Your task to perform on an android device: Add macbook to the cart on ebay.com Image 0: 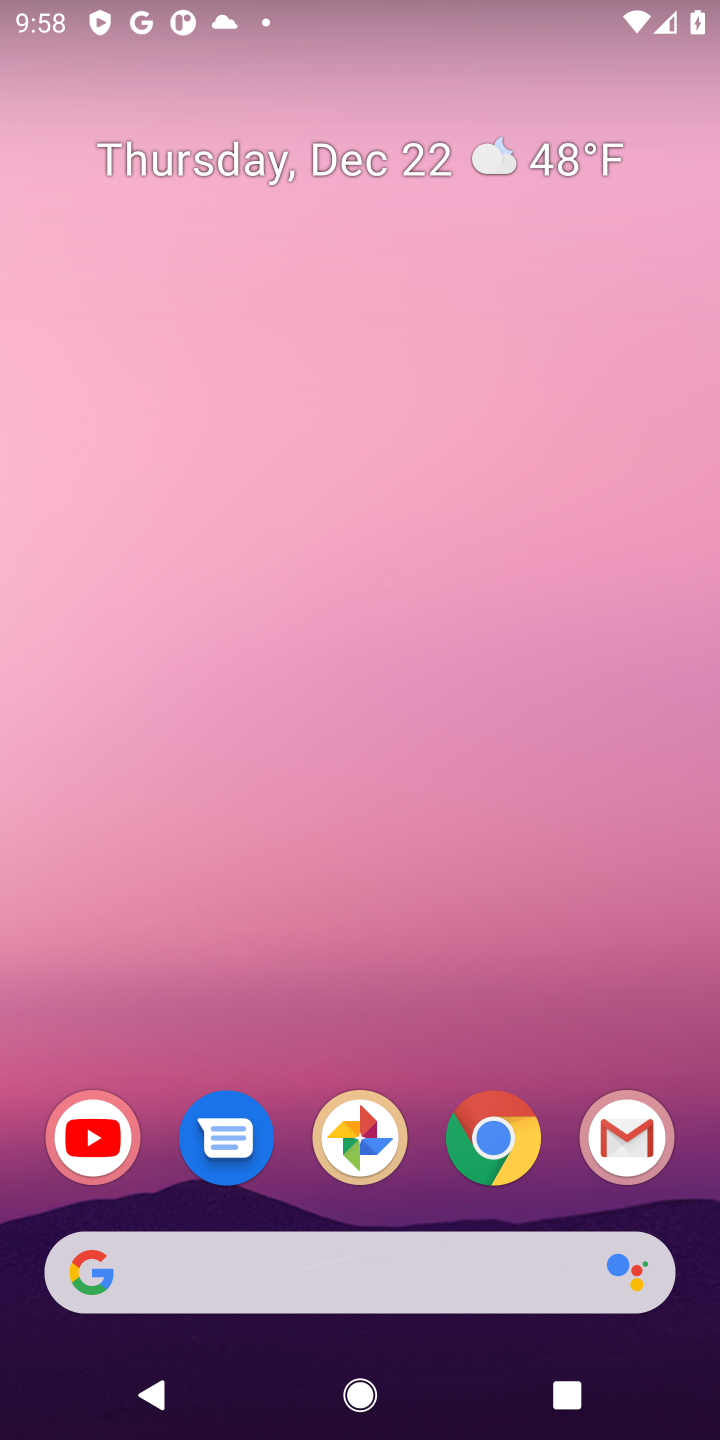
Step 0: click (500, 1136)
Your task to perform on an android device: Add macbook to the cart on ebay.com Image 1: 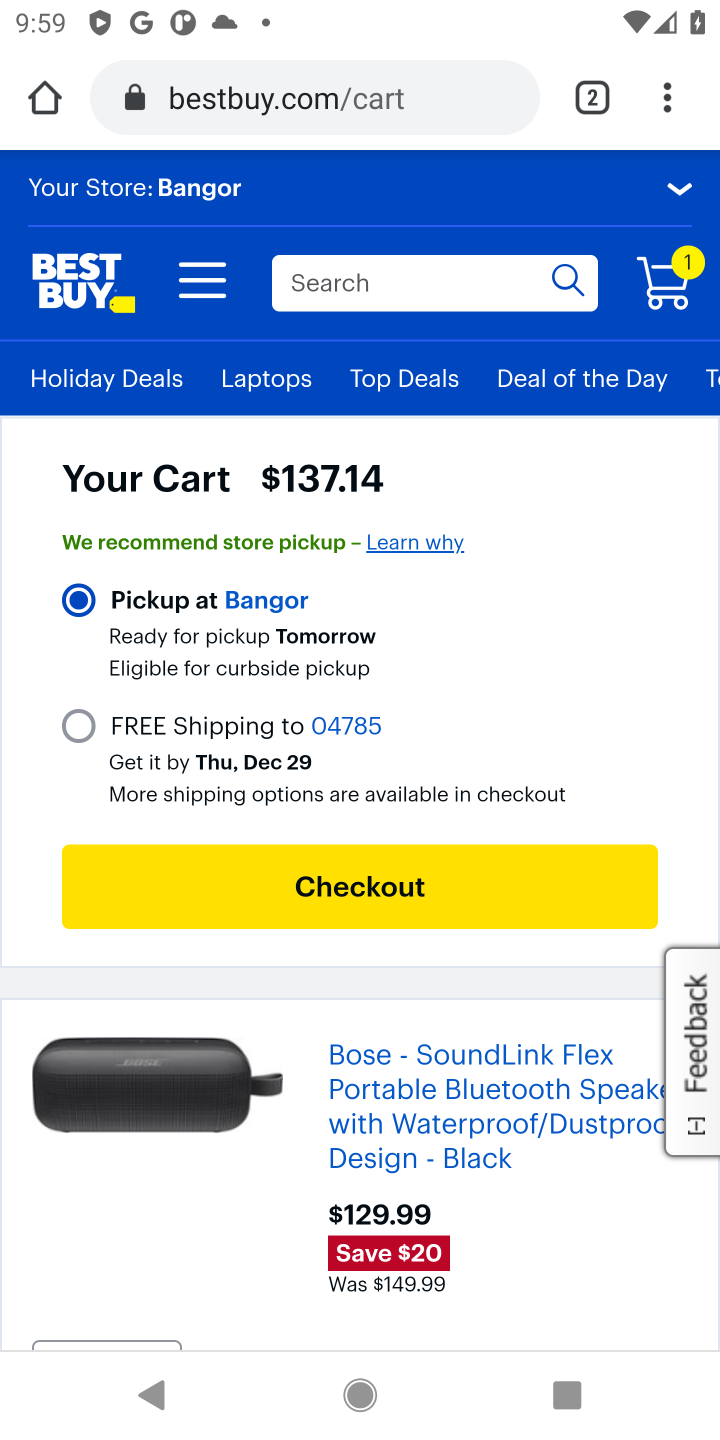
Step 1: click (248, 107)
Your task to perform on an android device: Add macbook to the cart on ebay.com Image 2: 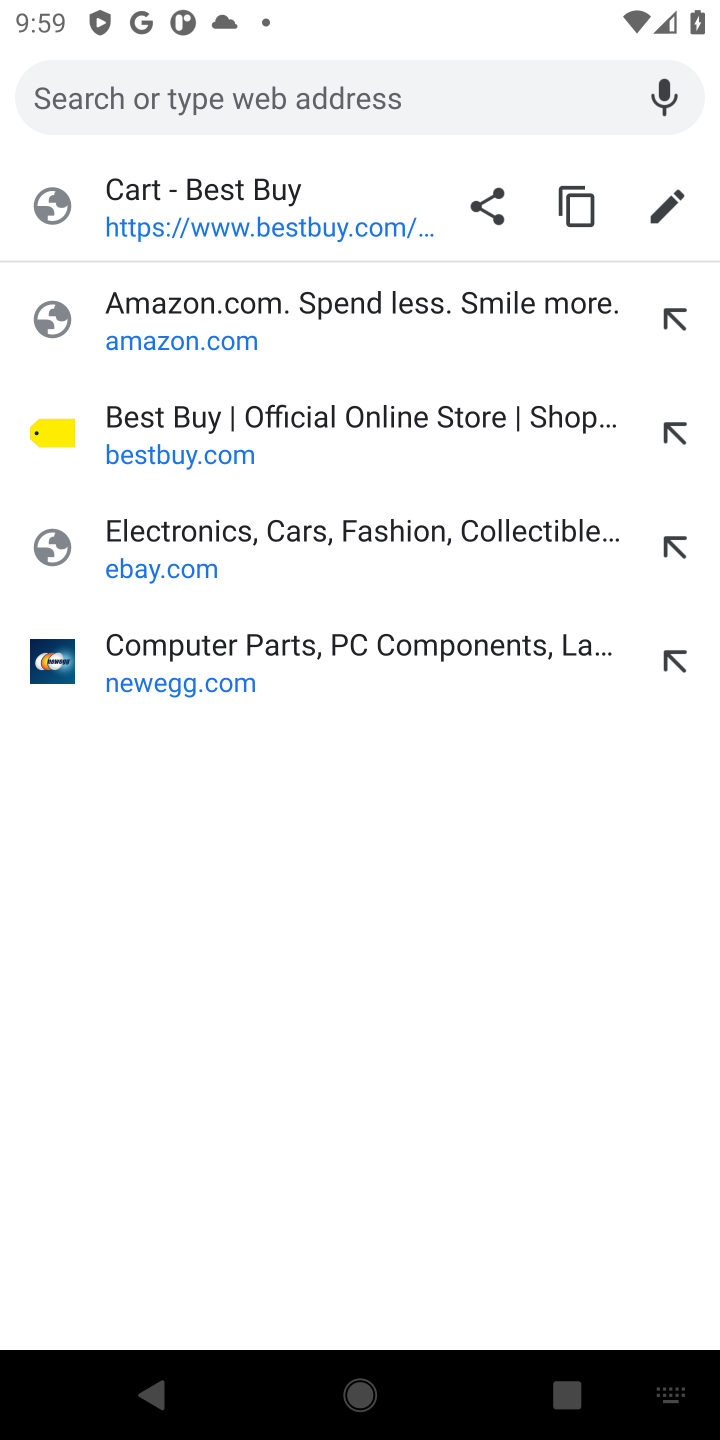
Step 2: type "ebay.com"
Your task to perform on an android device: Add macbook to the cart on ebay.com Image 3: 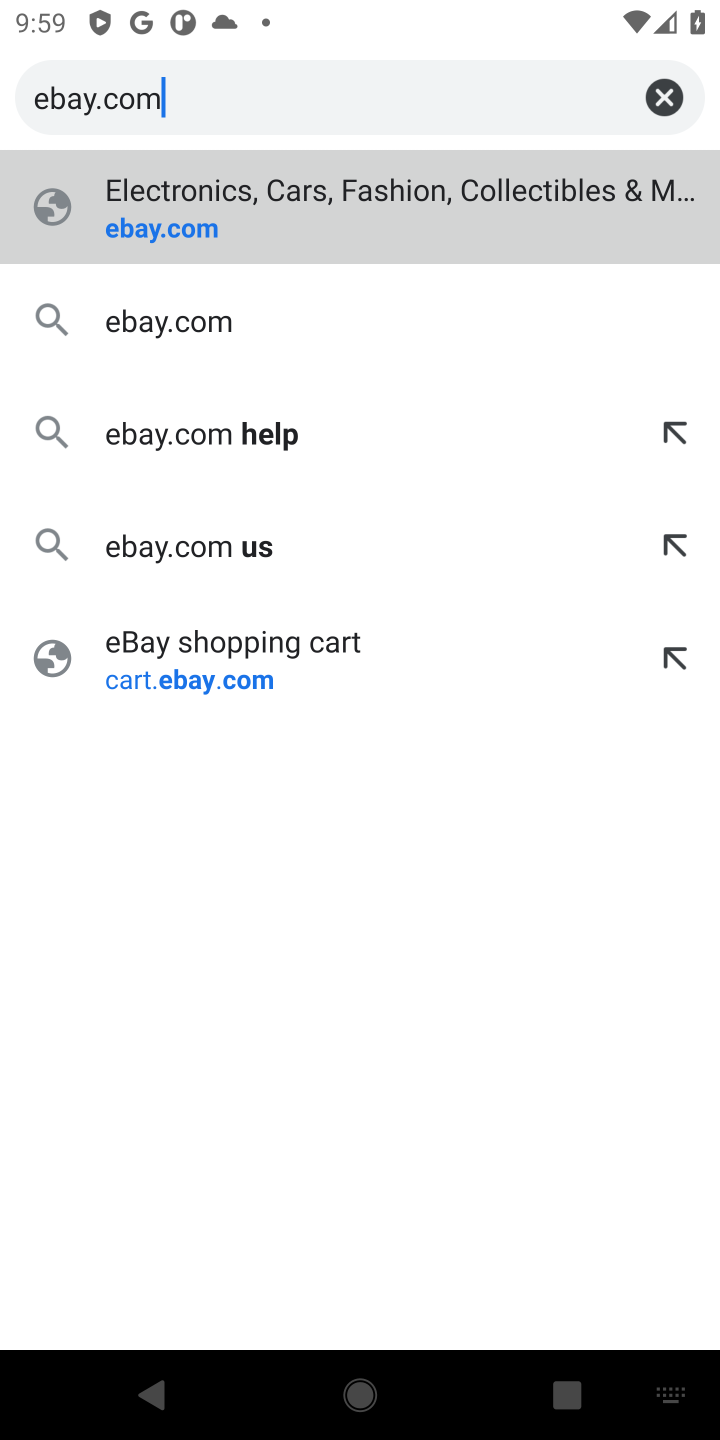
Step 3: click (336, 213)
Your task to perform on an android device: Add macbook to the cart on ebay.com Image 4: 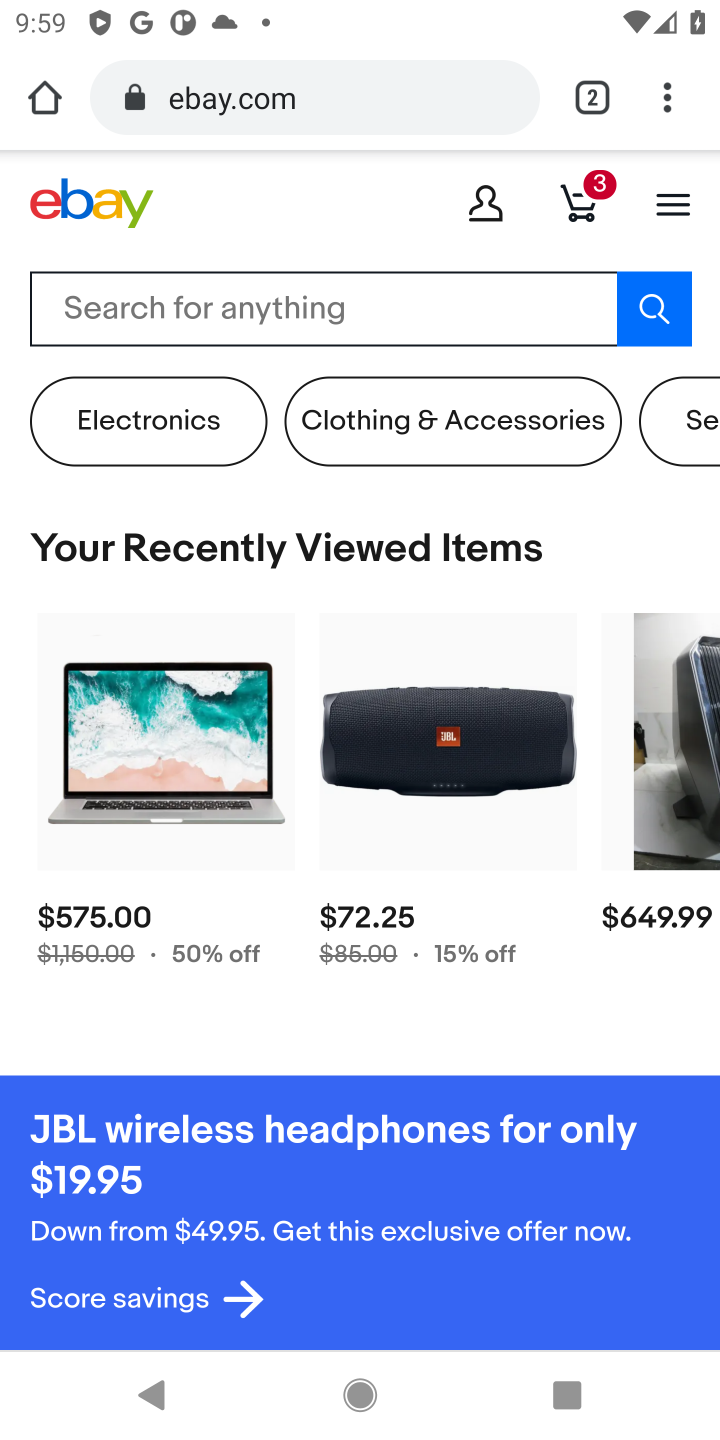
Step 4: drag from (464, 1025) to (515, 634)
Your task to perform on an android device: Add macbook to the cart on ebay.com Image 5: 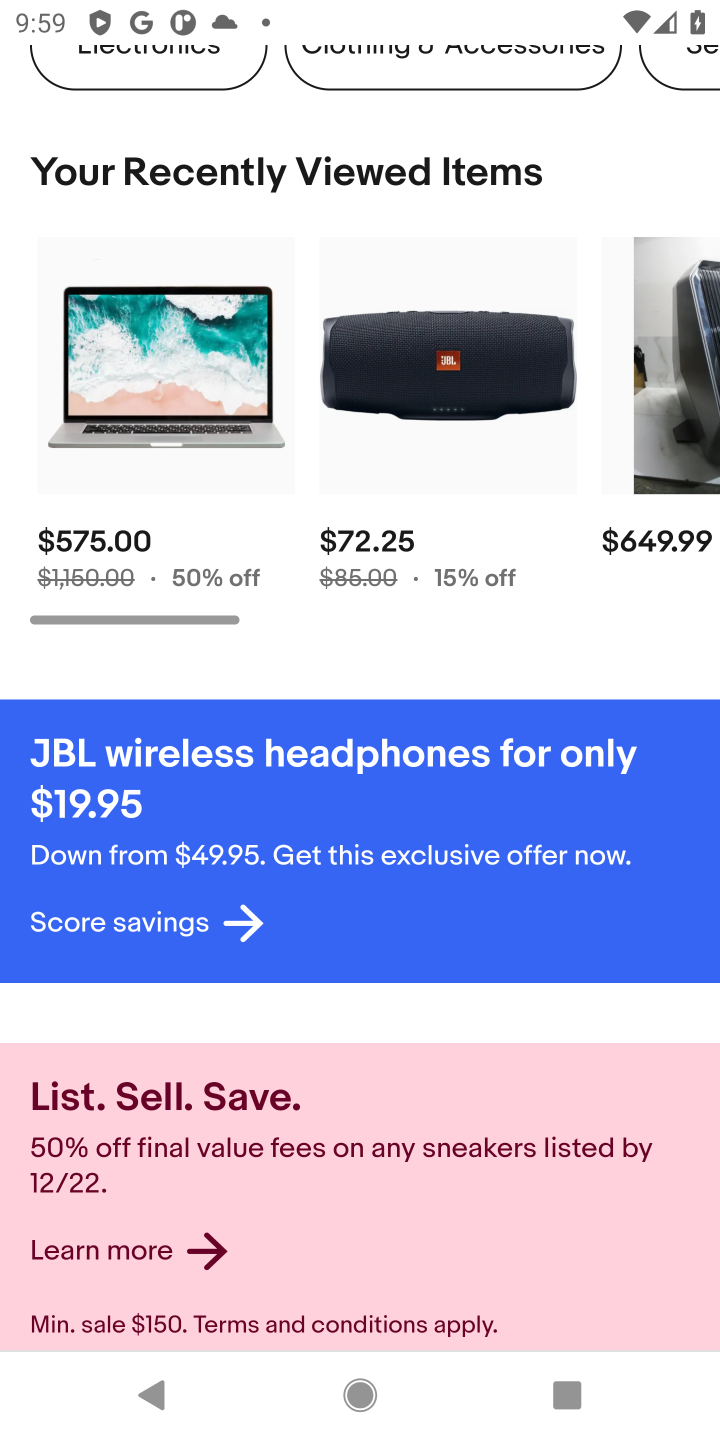
Step 5: drag from (358, 231) to (220, 1328)
Your task to perform on an android device: Add macbook to the cart on ebay.com Image 6: 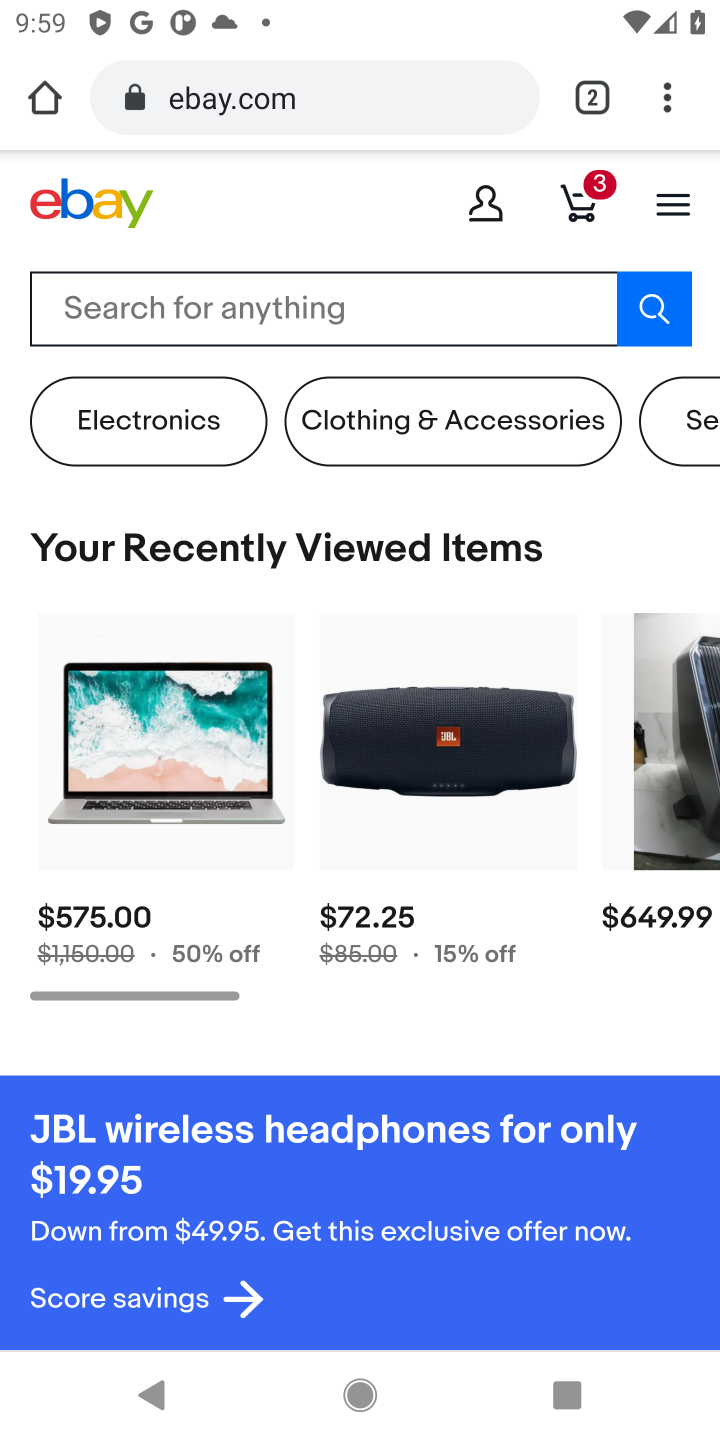
Step 6: click (376, 333)
Your task to perform on an android device: Add macbook to the cart on ebay.com Image 7: 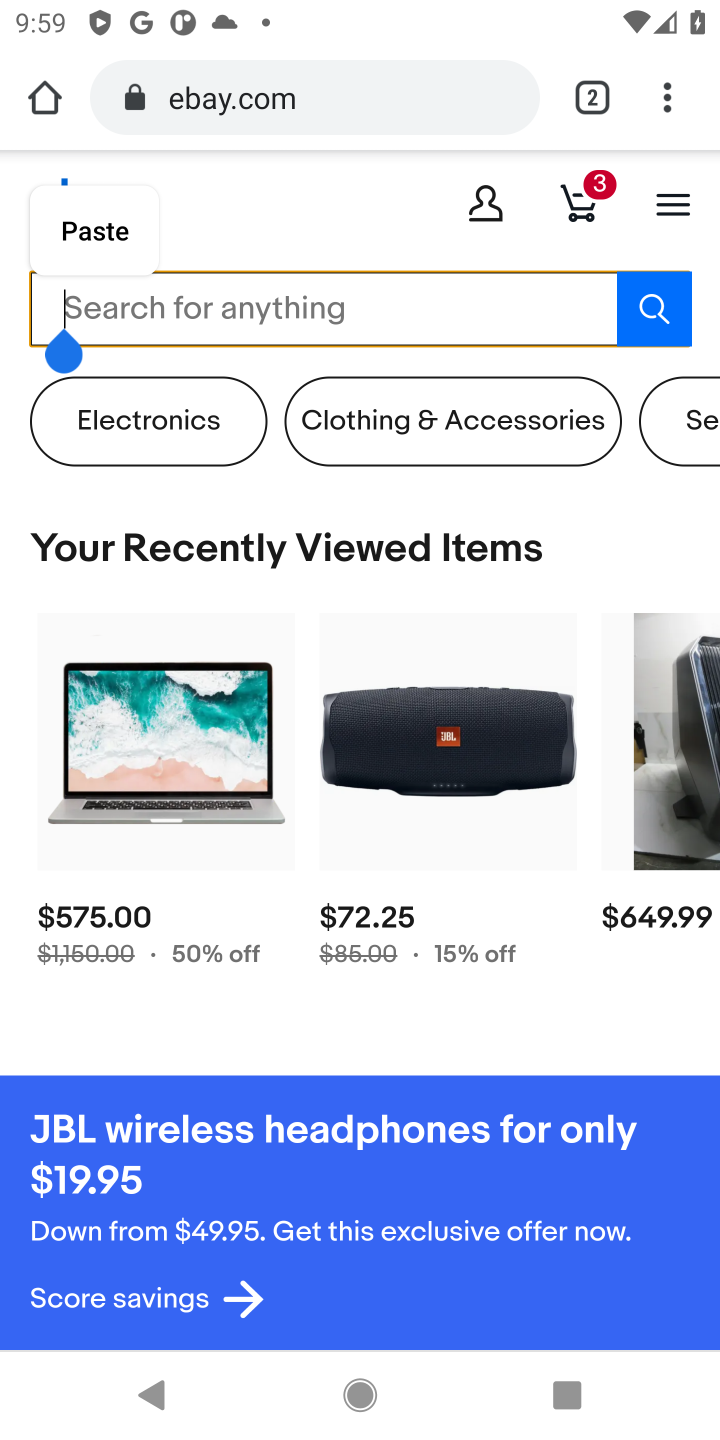
Step 7: type "macbook"
Your task to perform on an android device: Add macbook to the cart on ebay.com Image 8: 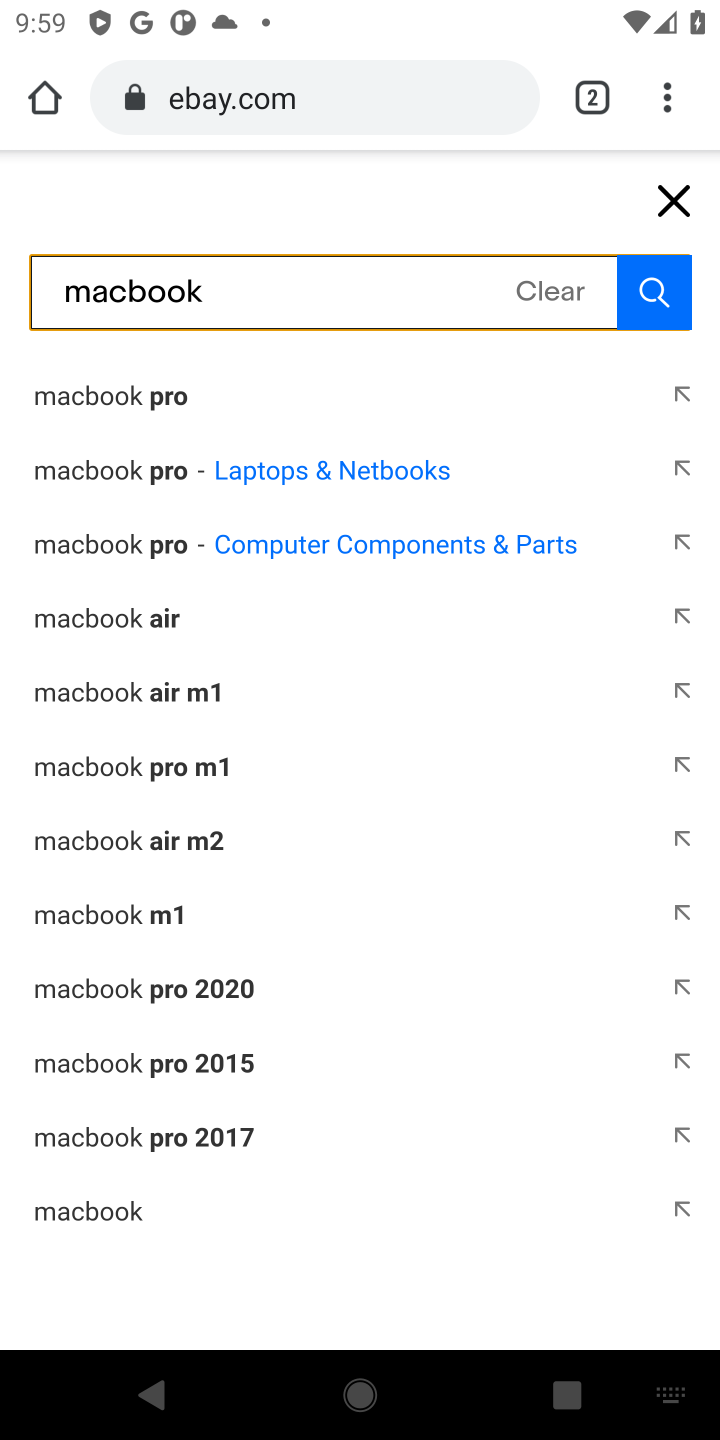
Step 8: click (657, 293)
Your task to perform on an android device: Add macbook to the cart on ebay.com Image 9: 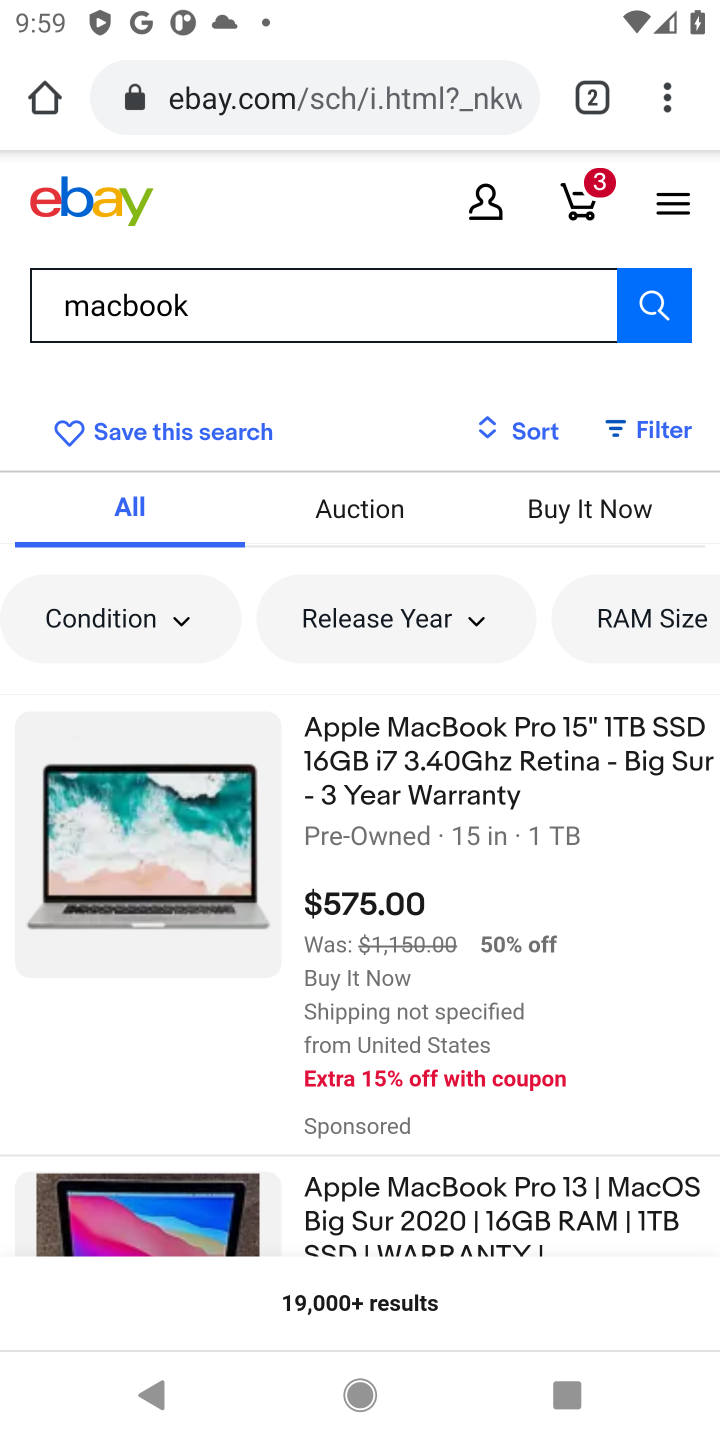
Step 9: click (417, 778)
Your task to perform on an android device: Add macbook to the cart on ebay.com Image 10: 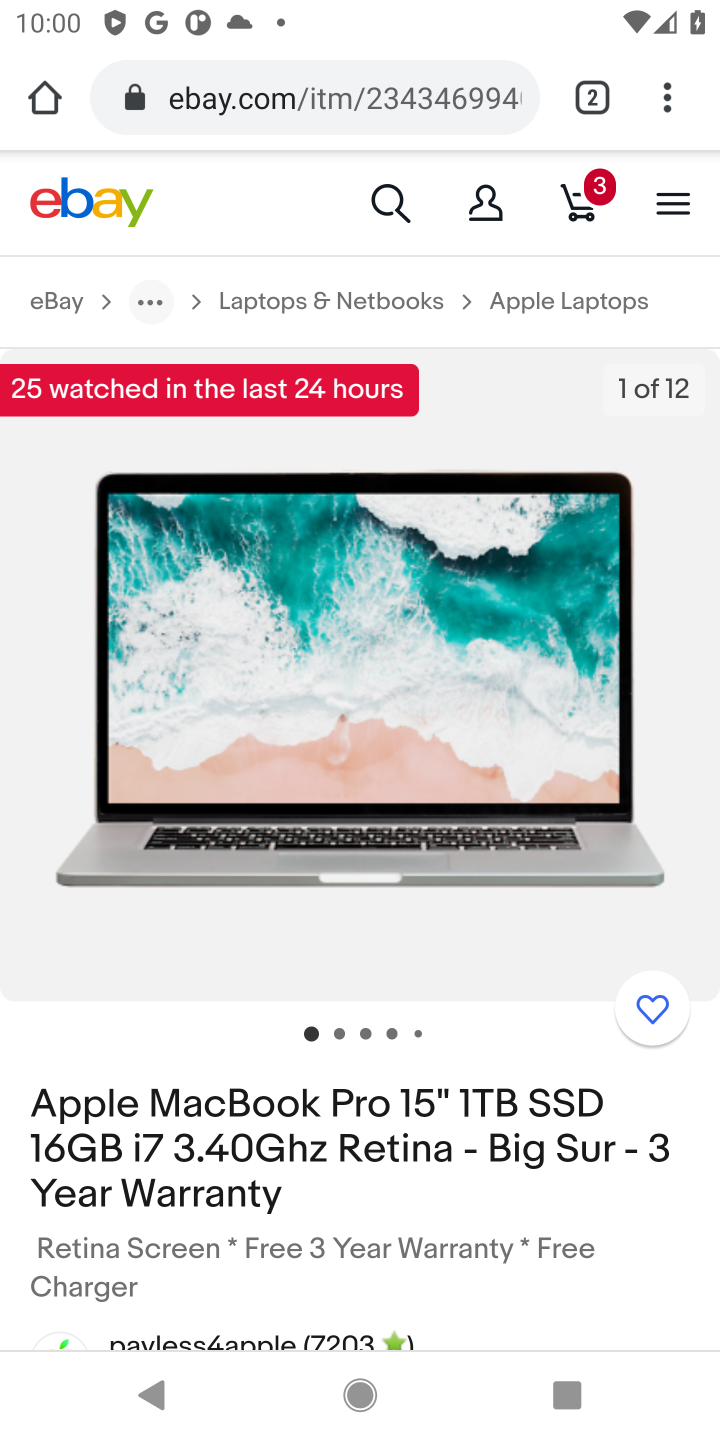
Step 10: drag from (488, 1134) to (554, 372)
Your task to perform on an android device: Add macbook to the cart on ebay.com Image 11: 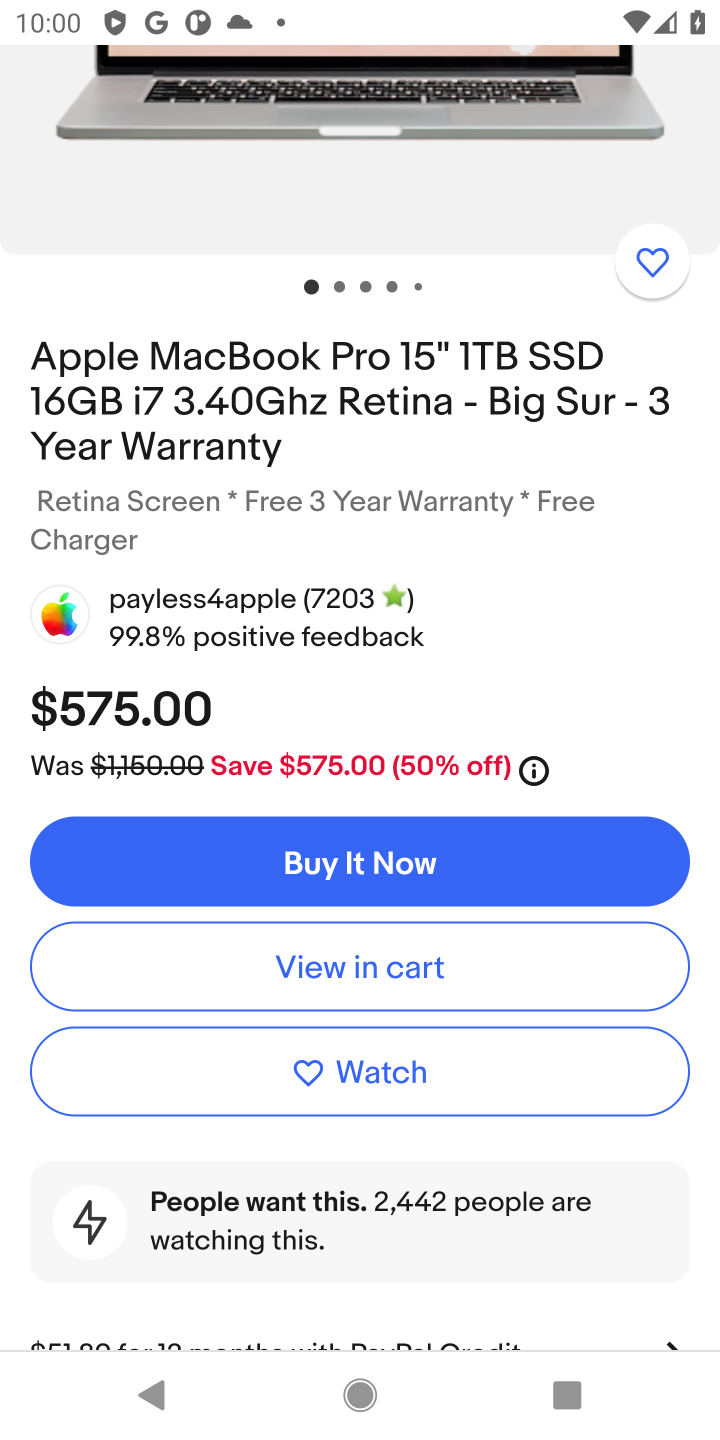
Step 11: click (406, 965)
Your task to perform on an android device: Add macbook to the cart on ebay.com Image 12: 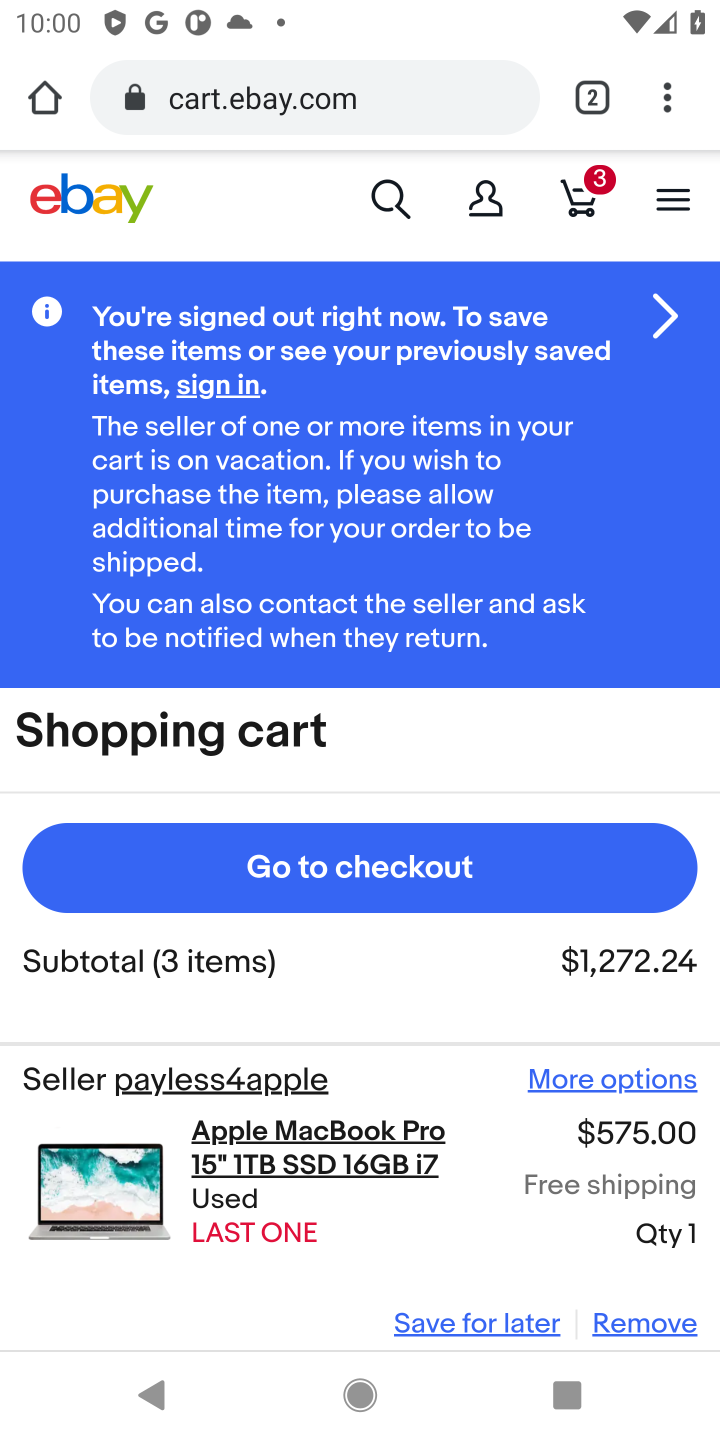
Step 12: task complete